Your task to perform on an android device: Empty the shopping cart on newegg. Add apple airpods pro to the cart on newegg Image 0: 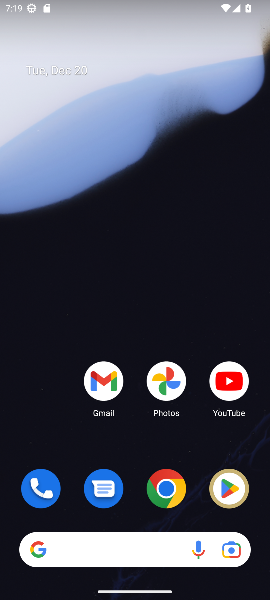
Step 0: drag from (59, 421) to (40, 103)
Your task to perform on an android device: Empty the shopping cart on newegg. Add apple airpods pro to the cart on newegg Image 1: 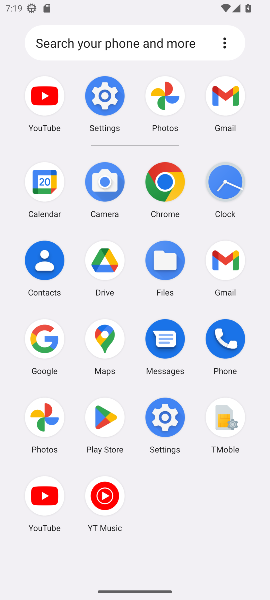
Step 1: click (40, 339)
Your task to perform on an android device: Empty the shopping cart on newegg. Add apple airpods pro to the cart on newegg Image 2: 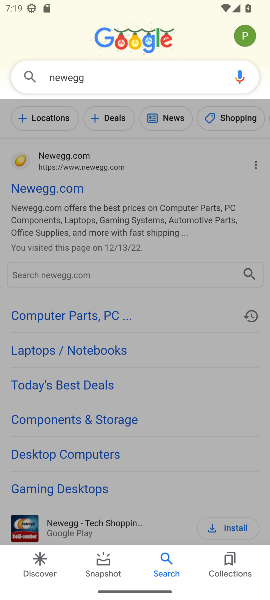
Step 2: click (118, 74)
Your task to perform on an android device: Empty the shopping cart on newegg. Add apple airpods pro to the cart on newegg Image 3: 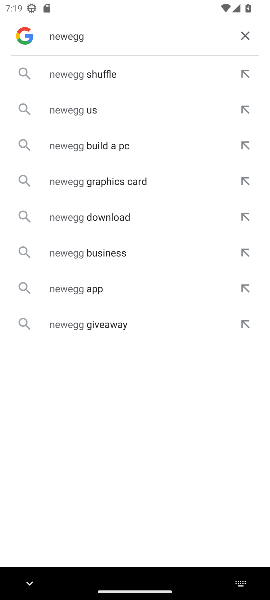
Step 3: click (244, 30)
Your task to perform on an android device: Empty the shopping cart on newegg. Add apple airpods pro to the cart on newegg Image 4: 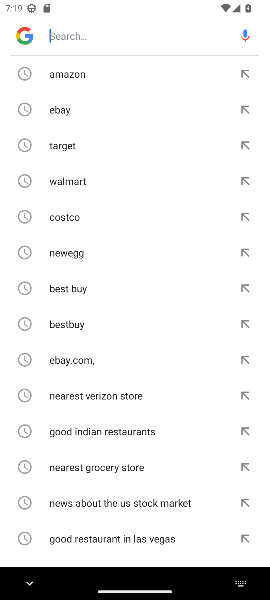
Step 4: type "newegg"
Your task to perform on an android device: Empty the shopping cart on newegg. Add apple airpods pro to the cart on newegg Image 5: 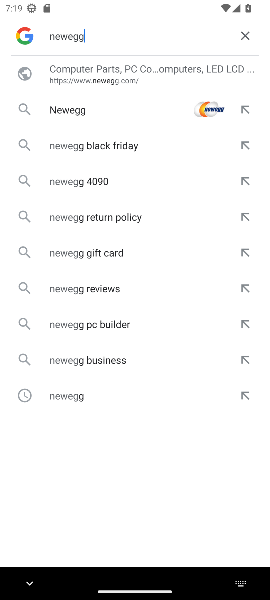
Step 5: press enter
Your task to perform on an android device: Empty the shopping cart on newegg. Add apple airpods pro to the cart on newegg Image 6: 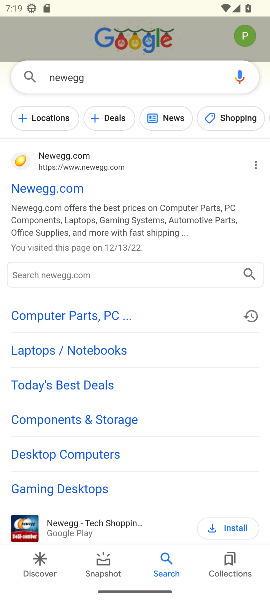
Step 6: click (30, 184)
Your task to perform on an android device: Empty the shopping cart on newegg. Add apple airpods pro to the cart on newegg Image 7: 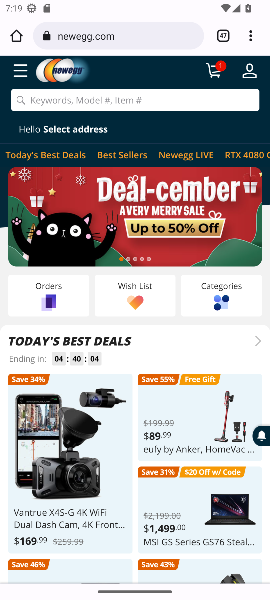
Step 7: click (217, 67)
Your task to perform on an android device: Empty the shopping cart on newegg. Add apple airpods pro to the cart on newegg Image 8: 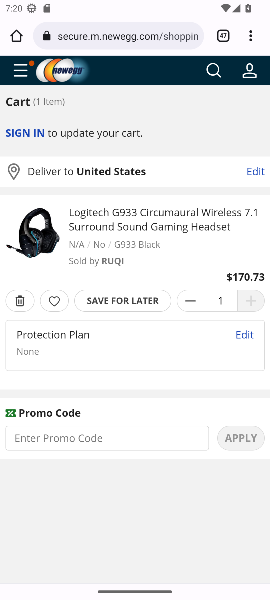
Step 8: click (18, 292)
Your task to perform on an android device: Empty the shopping cart on newegg. Add apple airpods pro to the cart on newegg Image 9: 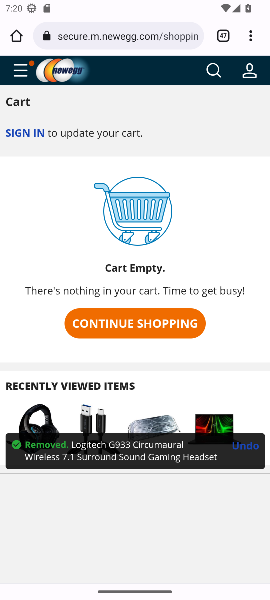
Step 9: click (213, 68)
Your task to perform on an android device: Empty the shopping cart on newegg. Add apple airpods pro to the cart on newegg Image 10: 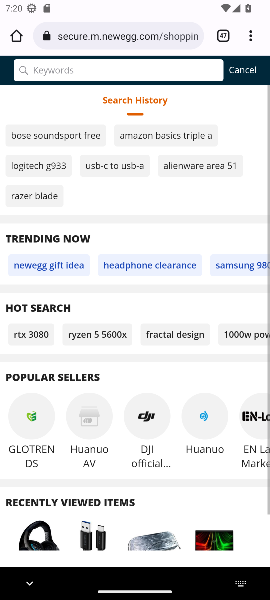
Step 10: type "apple airpods pro"
Your task to perform on an android device: Empty the shopping cart on newegg. Add apple airpods pro to the cart on newegg Image 11: 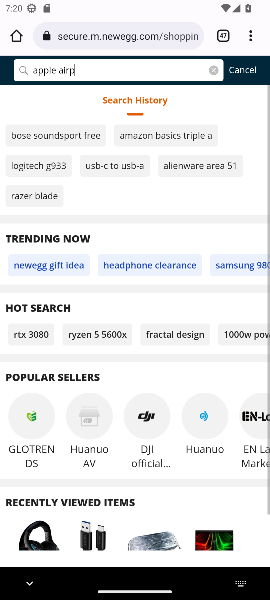
Step 11: press enter
Your task to perform on an android device: Empty the shopping cart on newegg. Add apple airpods pro to the cart on newegg Image 12: 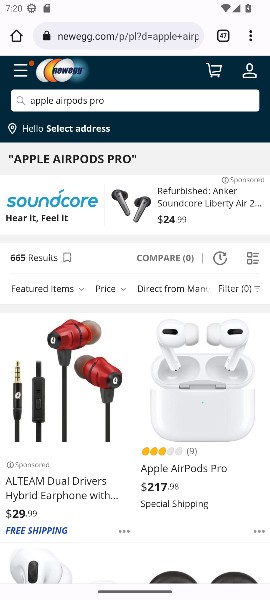
Step 12: click (156, 464)
Your task to perform on an android device: Empty the shopping cart on newegg. Add apple airpods pro to the cart on newegg Image 13: 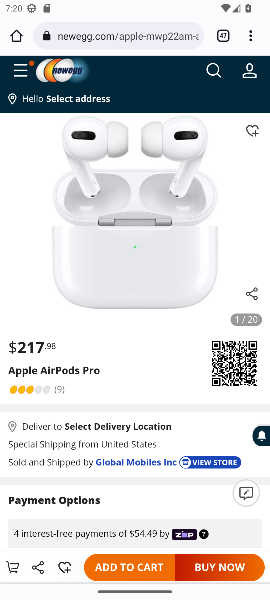
Step 13: click (127, 569)
Your task to perform on an android device: Empty the shopping cart on newegg. Add apple airpods pro to the cart on newegg Image 14: 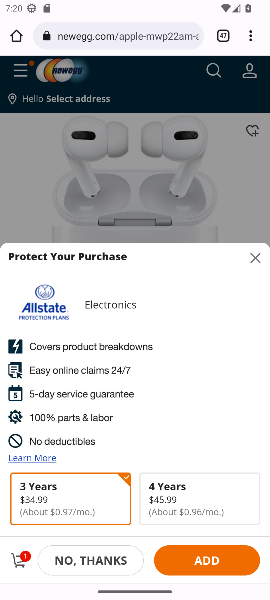
Step 14: task complete